Your task to perform on an android device: Go to Yahoo.com Image 0: 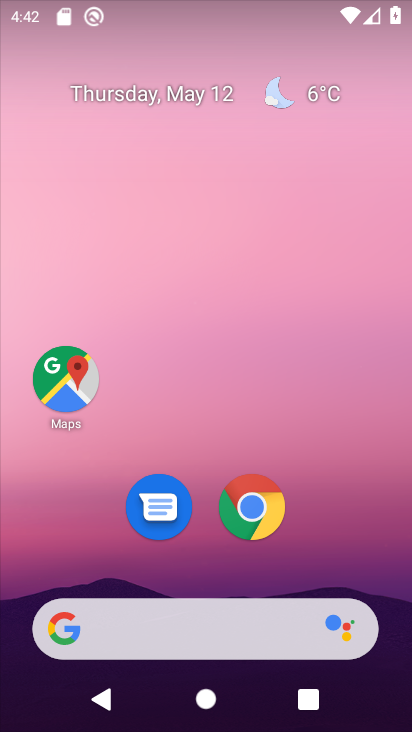
Step 0: click (264, 507)
Your task to perform on an android device: Go to Yahoo.com Image 1: 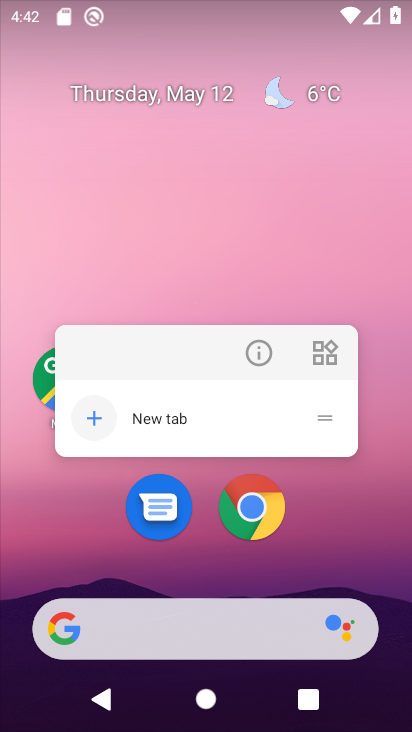
Step 1: click (248, 520)
Your task to perform on an android device: Go to Yahoo.com Image 2: 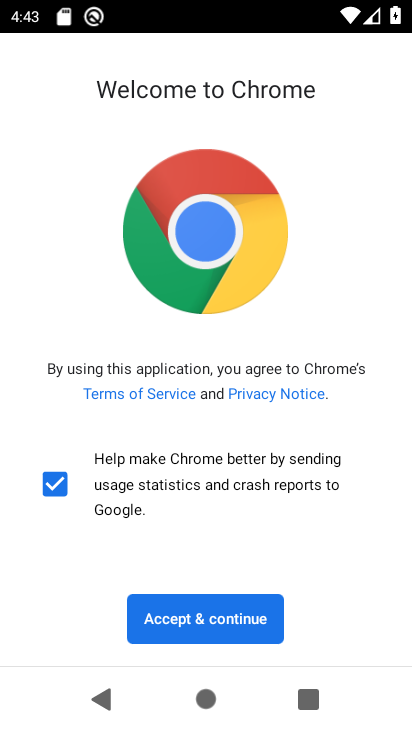
Step 2: click (245, 630)
Your task to perform on an android device: Go to Yahoo.com Image 3: 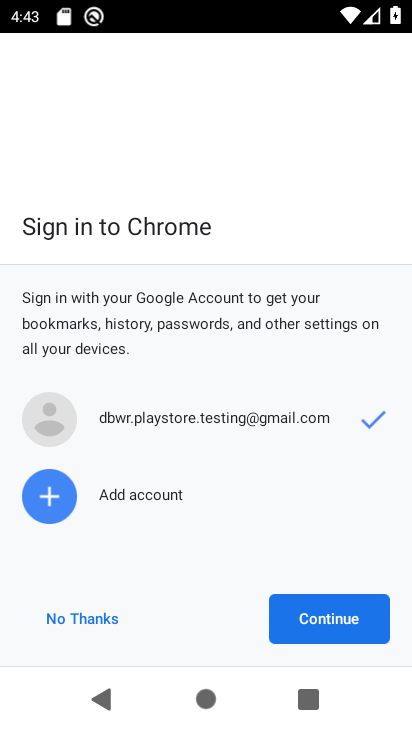
Step 3: click (289, 623)
Your task to perform on an android device: Go to Yahoo.com Image 4: 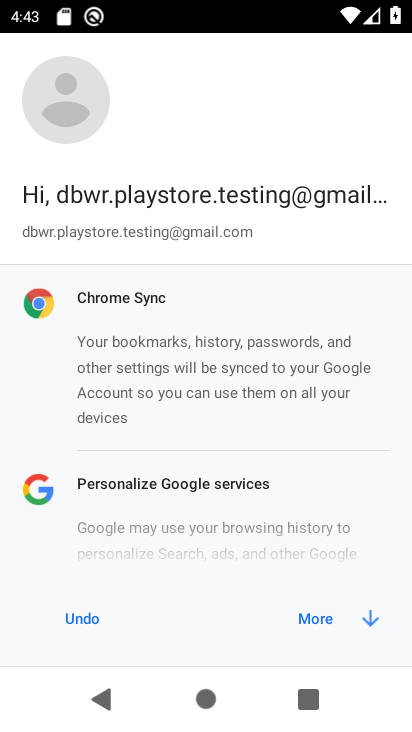
Step 4: click (308, 624)
Your task to perform on an android device: Go to Yahoo.com Image 5: 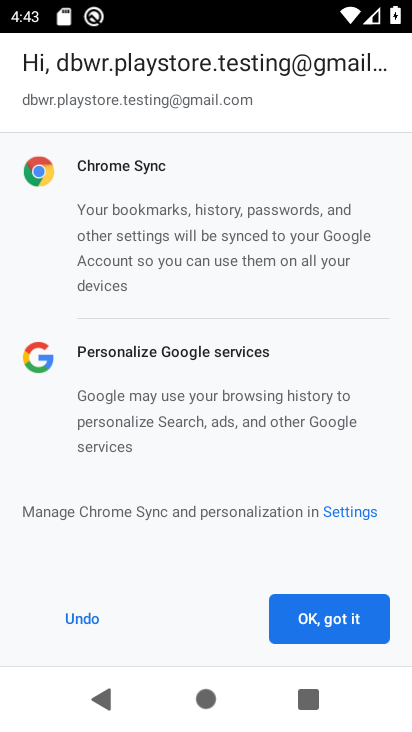
Step 5: click (333, 625)
Your task to perform on an android device: Go to Yahoo.com Image 6: 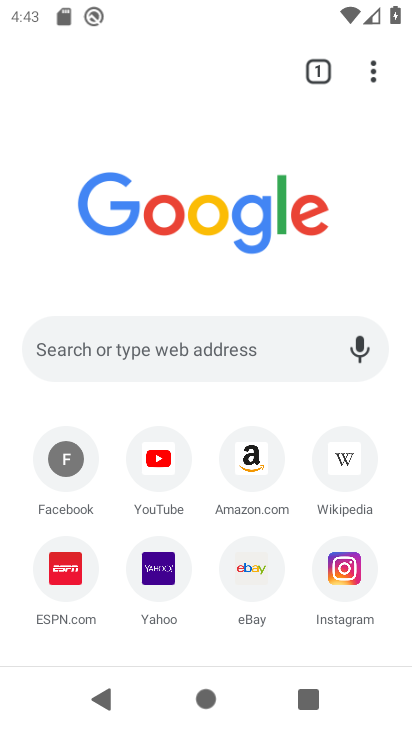
Step 6: click (148, 575)
Your task to perform on an android device: Go to Yahoo.com Image 7: 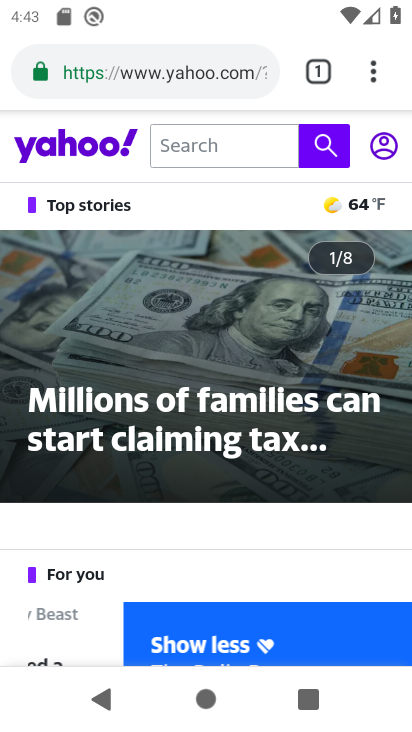
Step 7: task complete